Your task to perform on an android device: toggle location history Image 0: 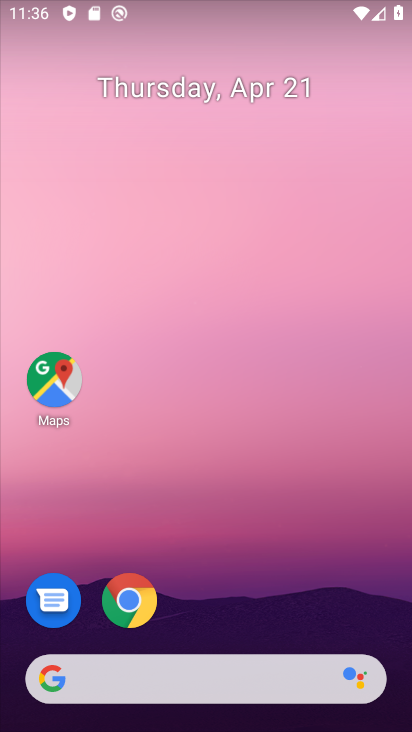
Step 0: drag from (207, 600) to (281, 45)
Your task to perform on an android device: toggle location history Image 1: 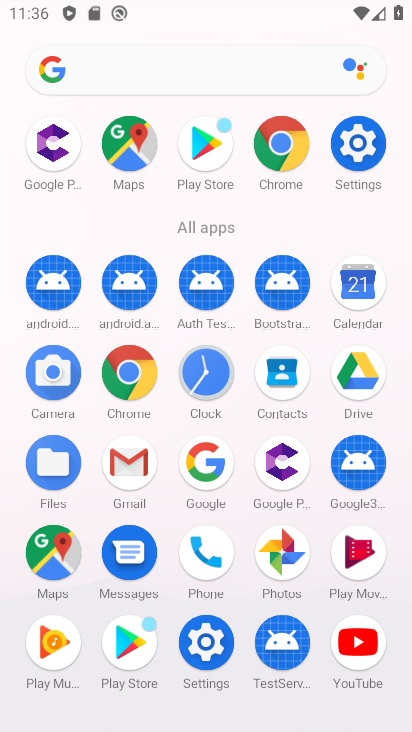
Step 1: click (208, 648)
Your task to perform on an android device: toggle location history Image 2: 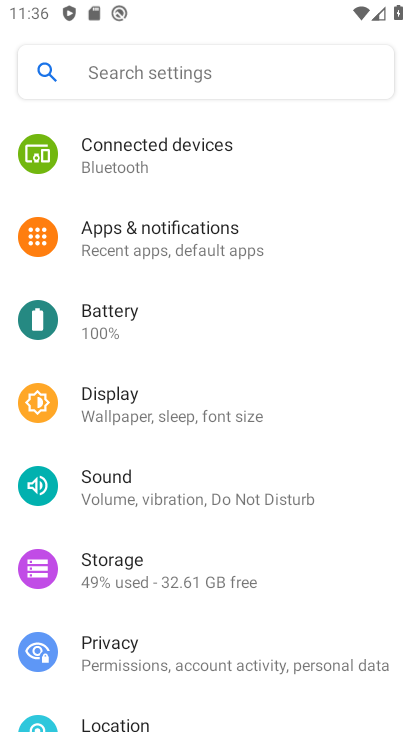
Step 2: drag from (123, 683) to (186, 460)
Your task to perform on an android device: toggle location history Image 3: 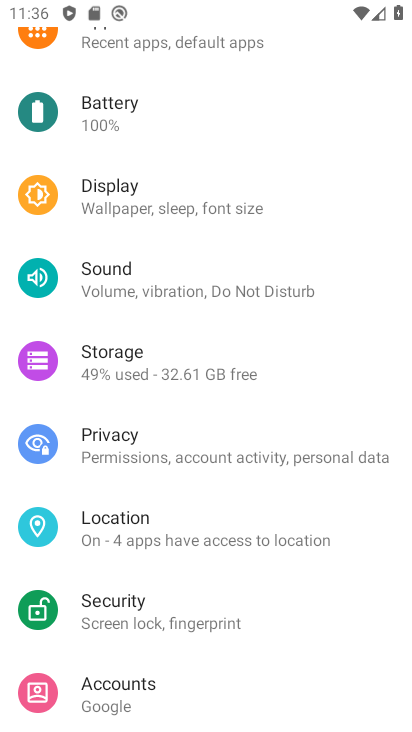
Step 3: click (118, 533)
Your task to perform on an android device: toggle location history Image 4: 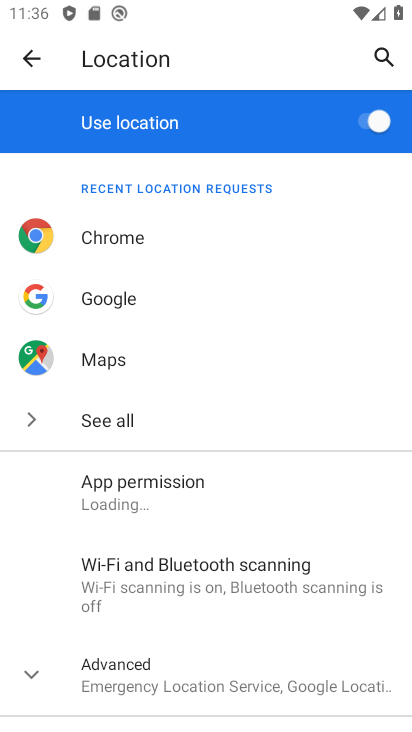
Step 4: drag from (118, 621) to (186, 380)
Your task to perform on an android device: toggle location history Image 5: 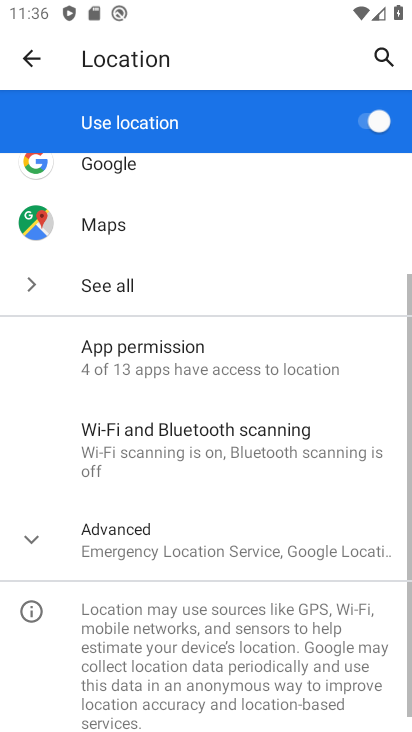
Step 5: click (125, 550)
Your task to perform on an android device: toggle location history Image 6: 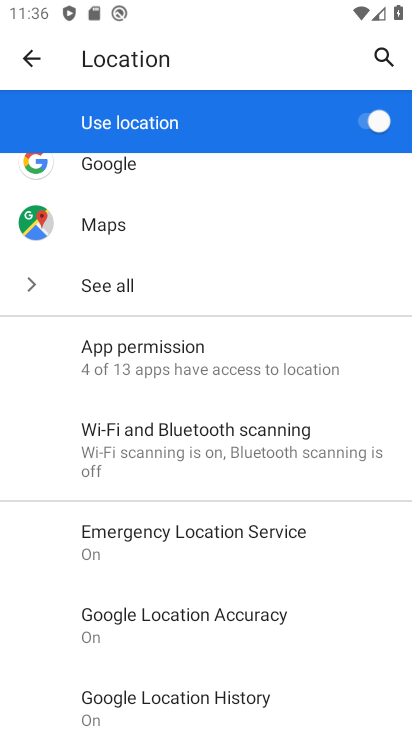
Step 6: drag from (184, 644) to (200, 542)
Your task to perform on an android device: toggle location history Image 7: 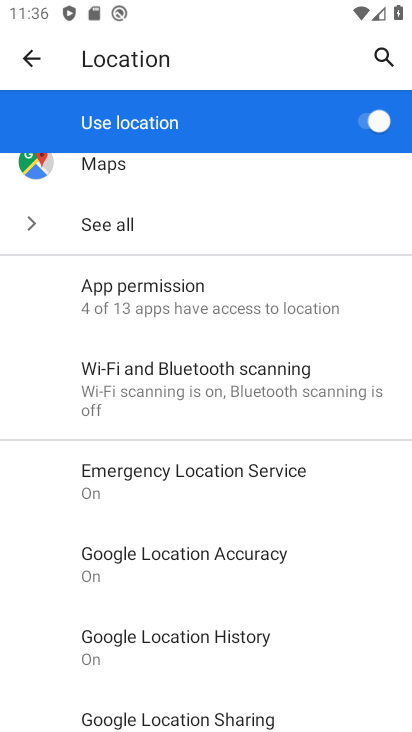
Step 7: click (154, 638)
Your task to perform on an android device: toggle location history Image 8: 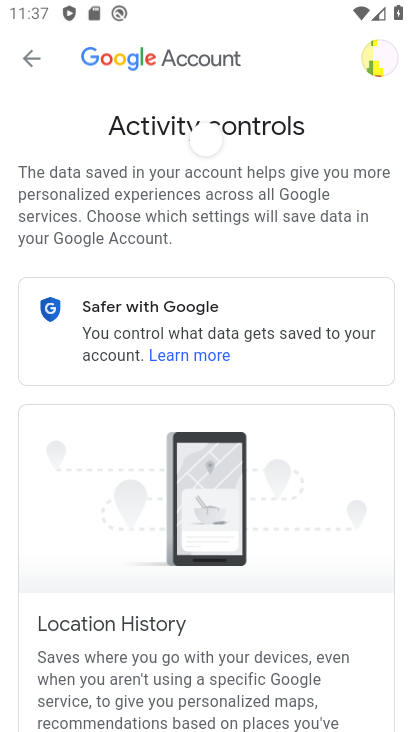
Step 8: drag from (124, 590) to (190, 355)
Your task to perform on an android device: toggle location history Image 9: 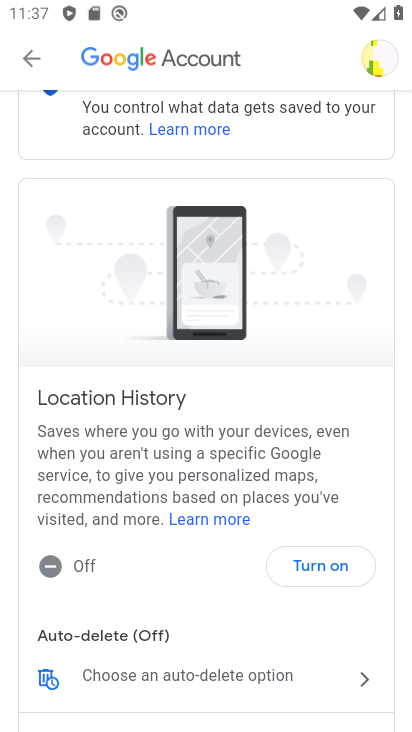
Step 9: click (314, 565)
Your task to perform on an android device: toggle location history Image 10: 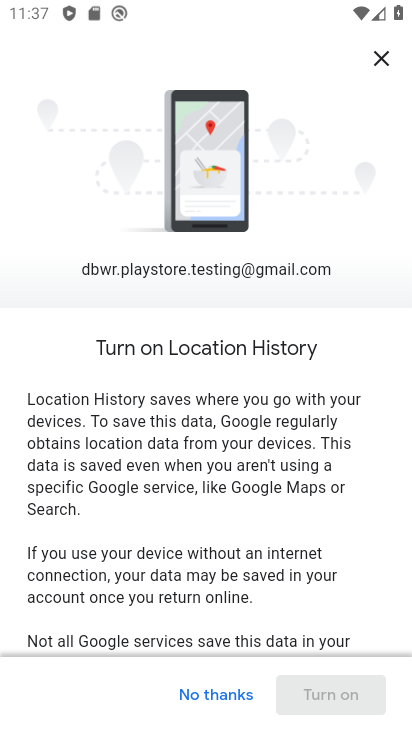
Step 10: drag from (194, 616) to (261, 139)
Your task to perform on an android device: toggle location history Image 11: 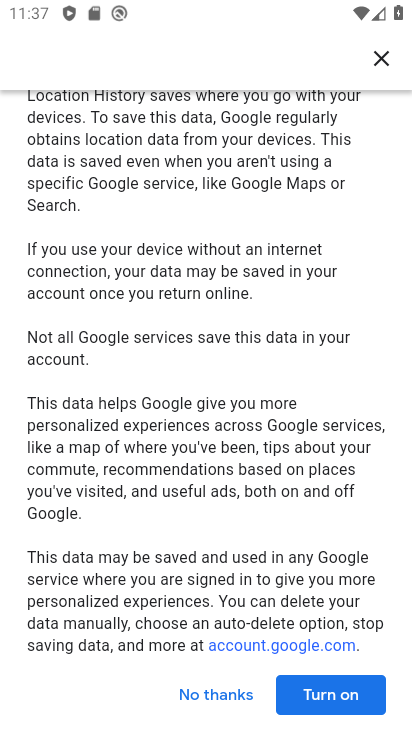
Step 11: drag from (175, 483) to (192, 350)
Your task to perform on an android device: toggle location history Image 12: 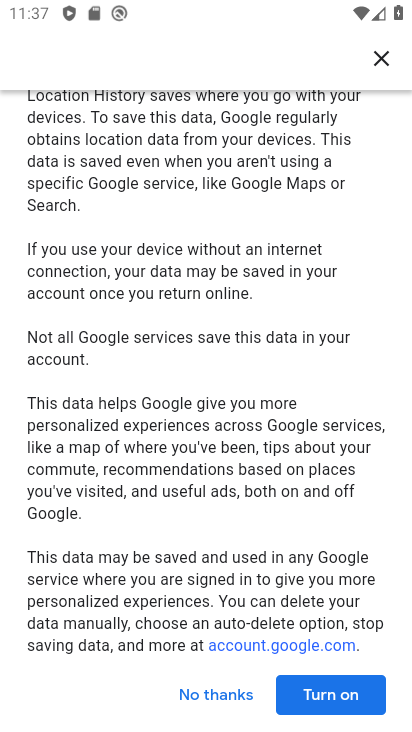
Step 12: click (326, 706)
Your task to perform on an android device: toggle location history Image 13: 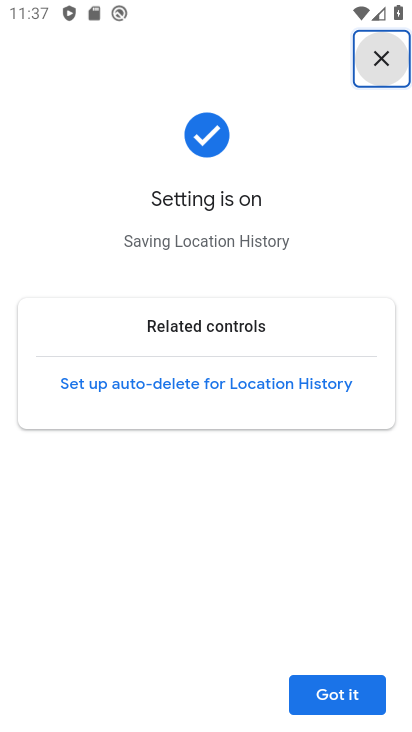
Step 13: click (346, 689)
Your task to perform on an android device: toggle location history Image 14: 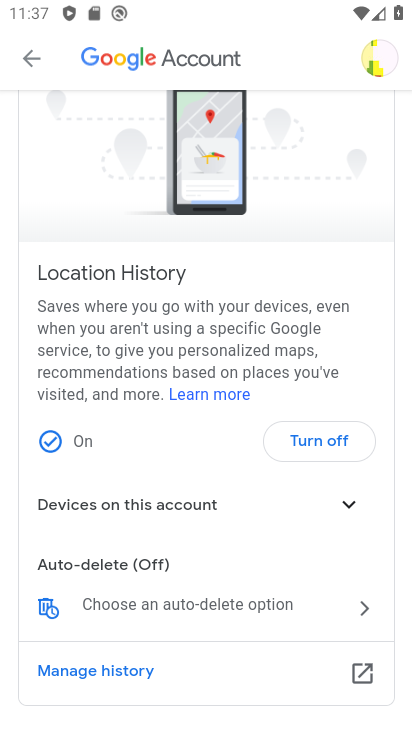
Step 14: task complete